Your task to perform on an android device: check data usage Image 0: 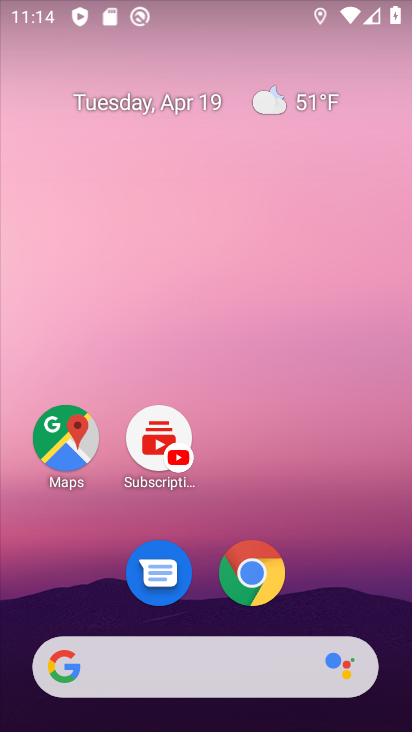
Step 0: drag from (318, 598) to (261, 109)
Your task to perform on an android device: check data usage Image 1: 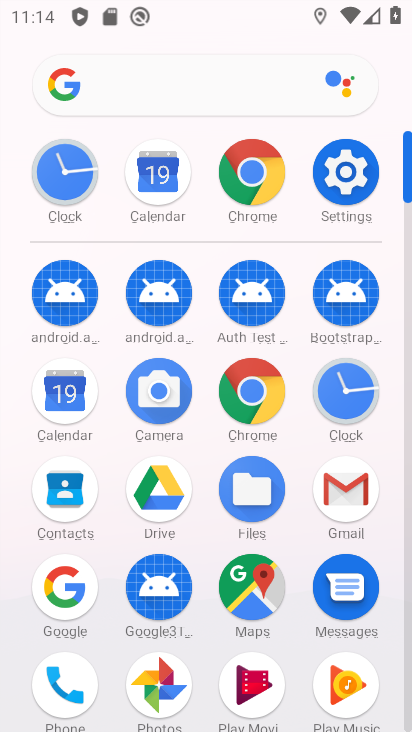
Step 1: click (350, 174)
Your task to perform on an android device: check data usage Image 2: 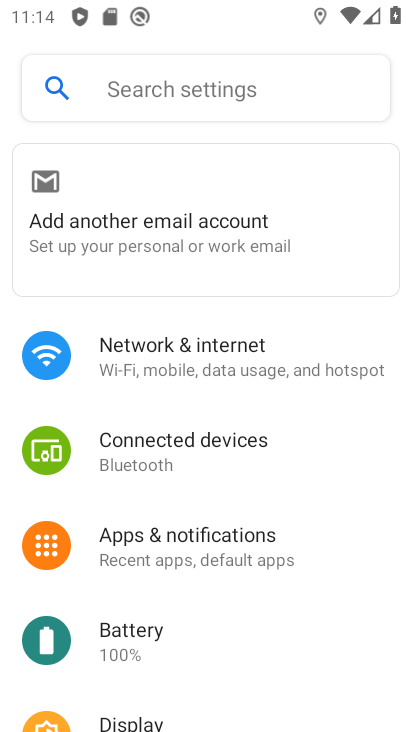
Step 2: click (253, 356)
Your task to perform on an android device: check data usage Image 3: 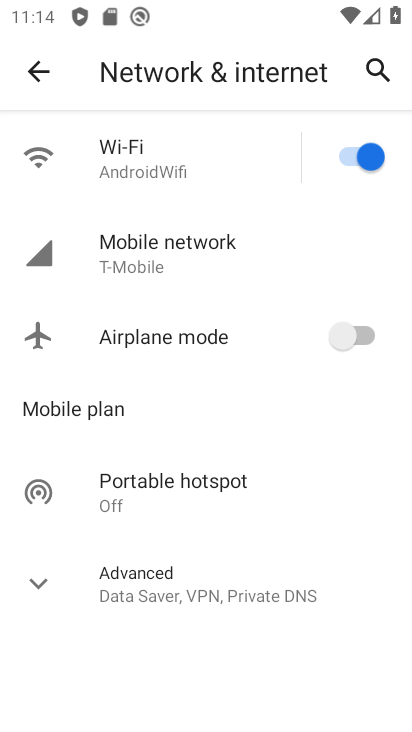
Step 3: click (139, 254)
Your task to perform on an android device: check data usage Image 4: 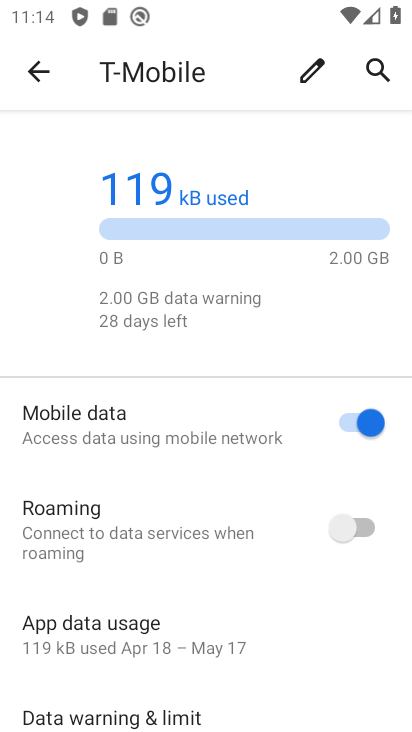
Step 4: drag from (117, 597) to (113, 436)
Your task to perform on an android device: check data usage Image 5: 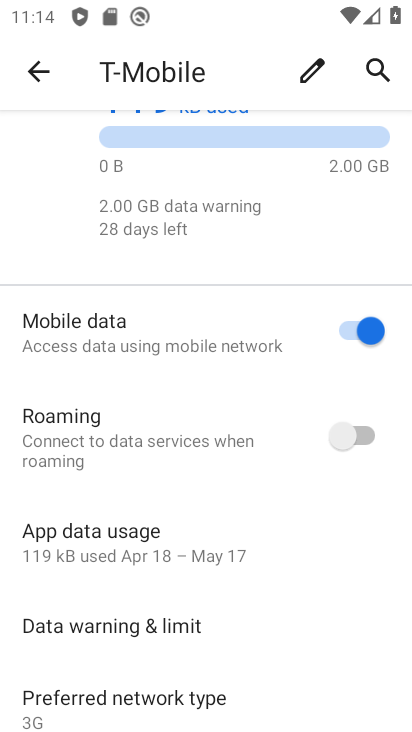
Step 5: click (107, 550)
Your task to perform on an android device: check data usage Image 6: 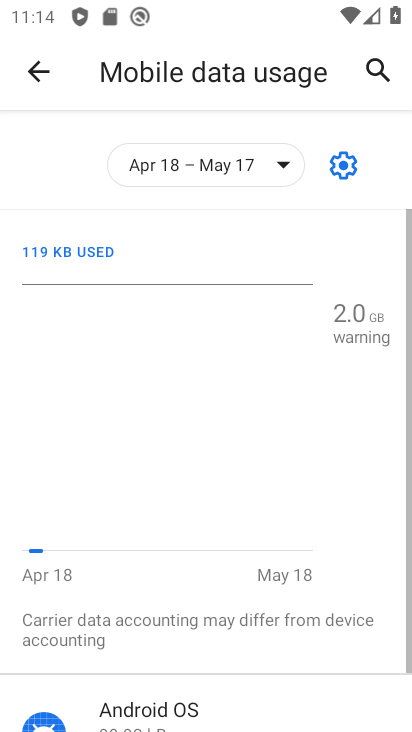
Step 6: drag from (186, 683) to (193, 416)
Your task to perform on an android device: check data usage Image 7: 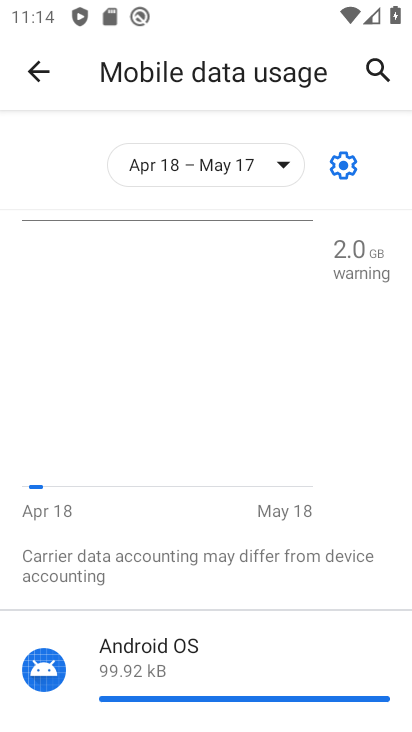
Step 7: click (35, 67)
Your task to perform on an android device: check data usage Image 8: 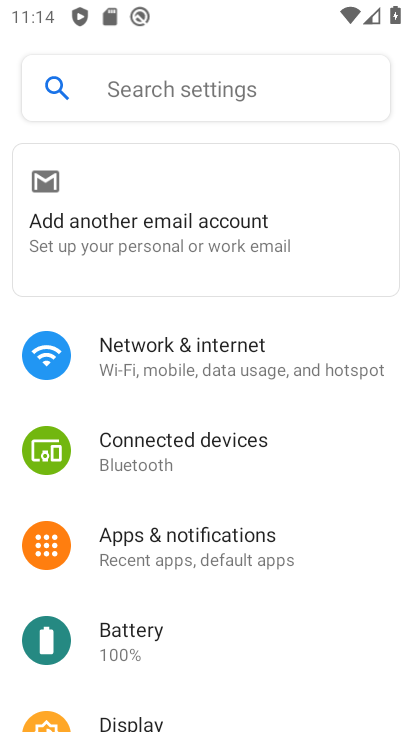
Step 8: task complete